Your task to perform on an android device: Open wifi settings Image 0: 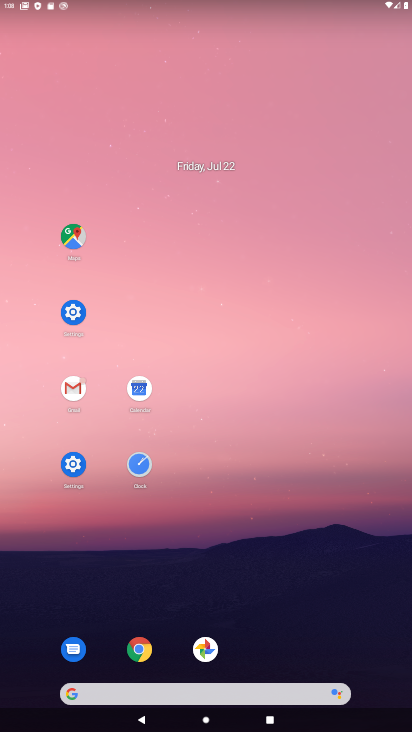
Step 0: click (67, 468)
Your task to perform on an android device: Open wifi settings Image 1: 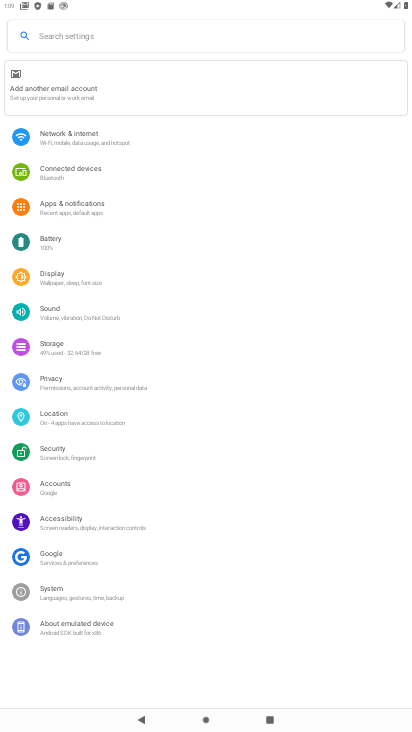
Step 1: click (58, 127)
Your task to perform on an android device: Open wifi settings Image 2: 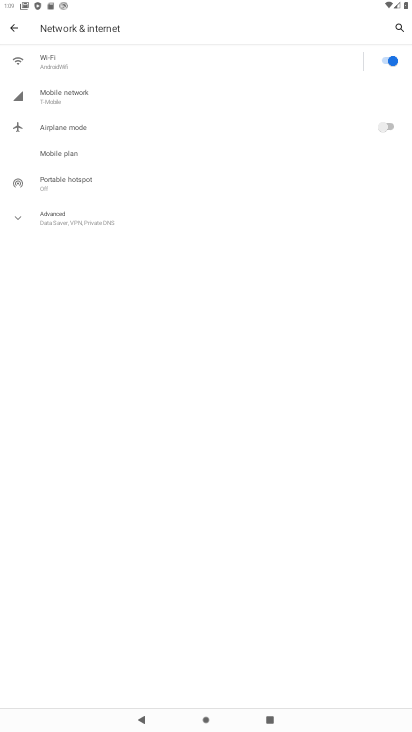
Step 2: click (46, 55)
Your task to perform on an android device: Open wifi settings Image 3: 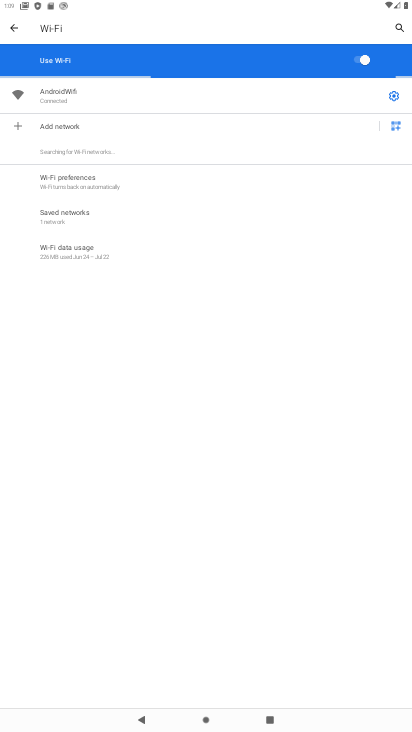
Step 3: task complete